Your task to perform on an android device: Search for the best 100% cotton t-shirts Image 0: 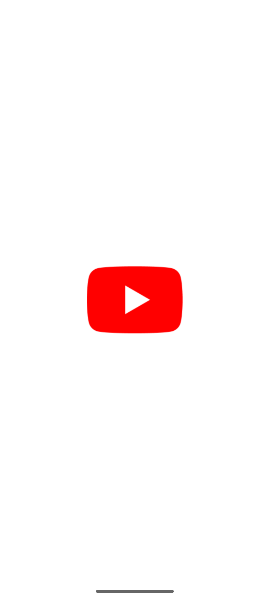
Step 0: press home button
Your task to perform on an android device: Search for the best 100% cotton t-shirts Image 1: 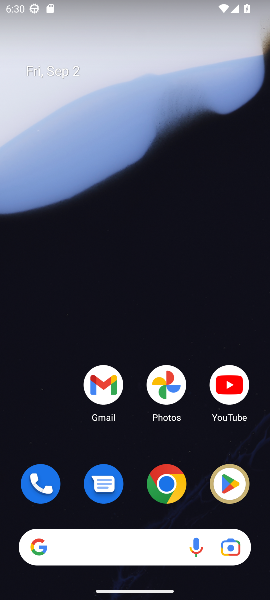
Step 1: click (169, 479)
Your task to perform on an android device: Search for the best 100% cotton t-shirts Image 2: 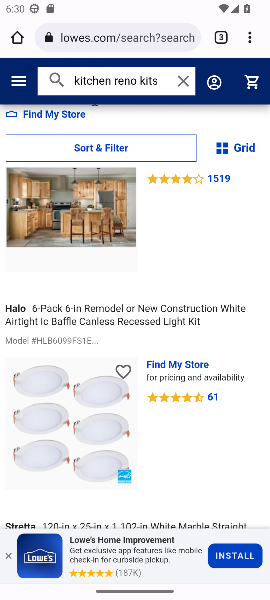
Step 2: click (176, 28)
Your task to perform on an android device: Search for the best 100% cotton t-shirts Image 3: 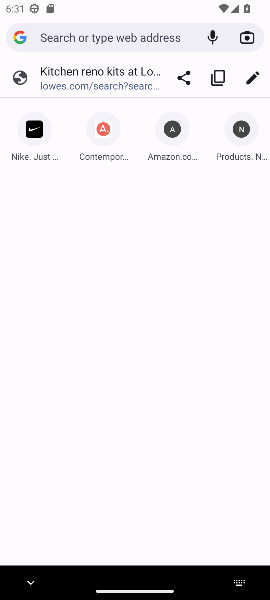
Step 3: type "100% cotton t-shirts"
Your task to perform on an android device: Search for the best 100% cotton t-shirts Image 4: 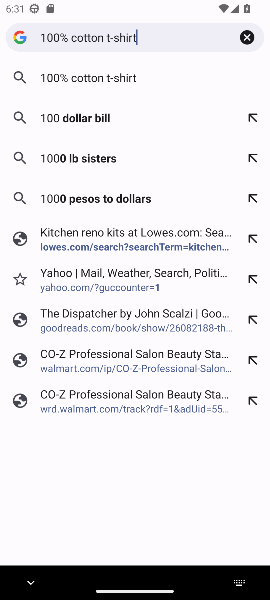
Step 4: press enter
Your task to perform on an android device: Search for the best 100% cotton t-shirts Image 5: 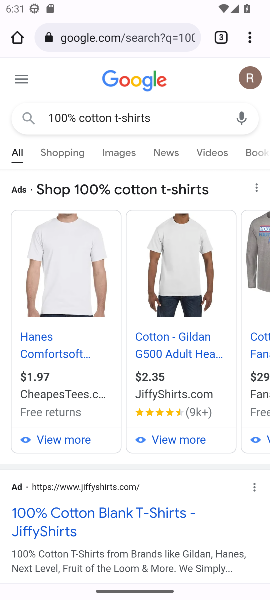
Step 5: task complete